Your task to perform on an android device: empty trash in google photos Image 0: 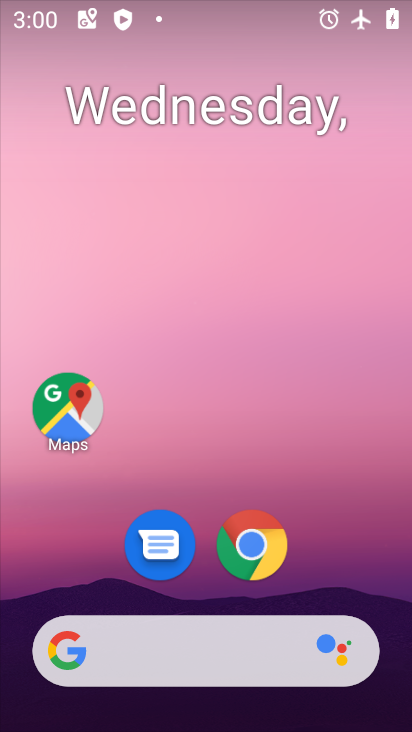
Step 0: drag from (340, 514) to (340, 108)
Your task to perform on an android device: empty trash in google photos Image 1: 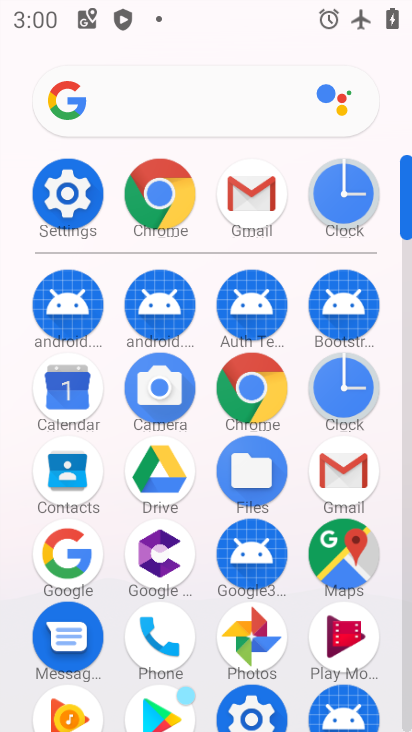
Step 1: click (254, 637)
Your task to perform on an android device: empty trash in google photos Image 2: 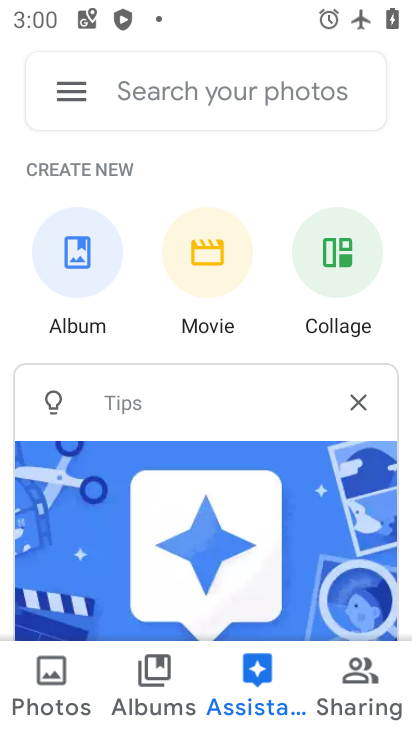
Step 2: click (74, 84)
Your task to perform on an android device: empty trash in google photos Image 3: 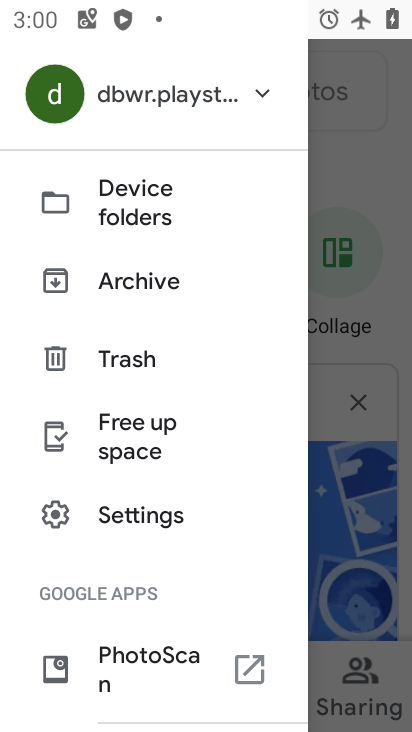
Step 3: click (146, 358)
Your task to perform on an android device: empty trash in google photos Image 4: 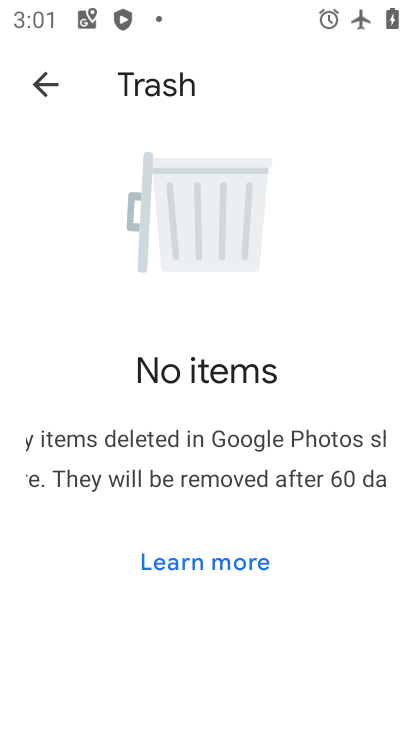
Step 4: task complete